Your task to perform on an android device: stop showing notifications on the lock screen Image 0: 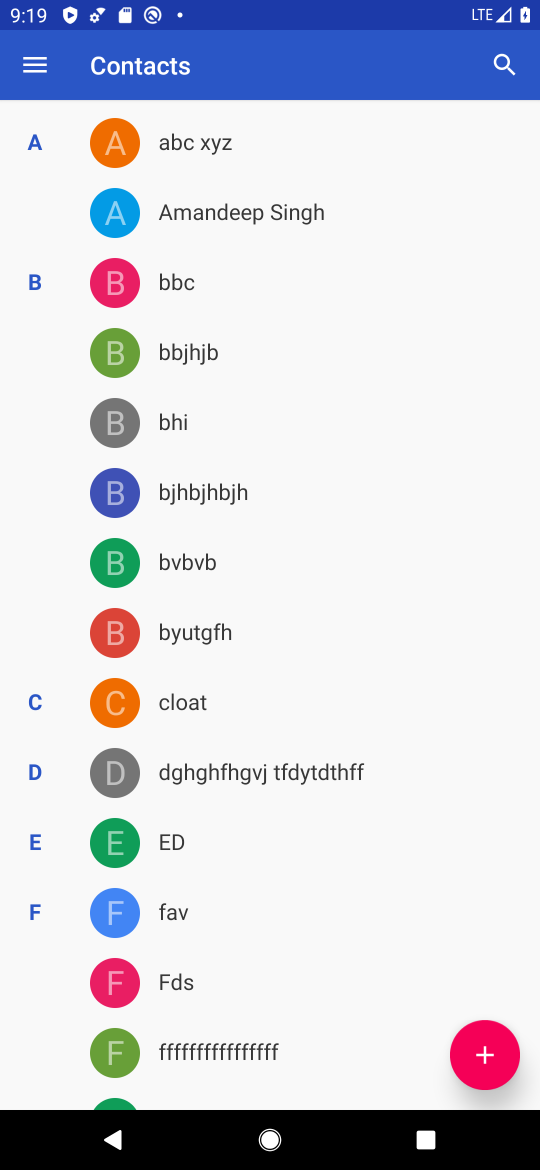
Step 0: press home button
Your task to perform on an android device: stop showing notifications on the lock screen Image 1: 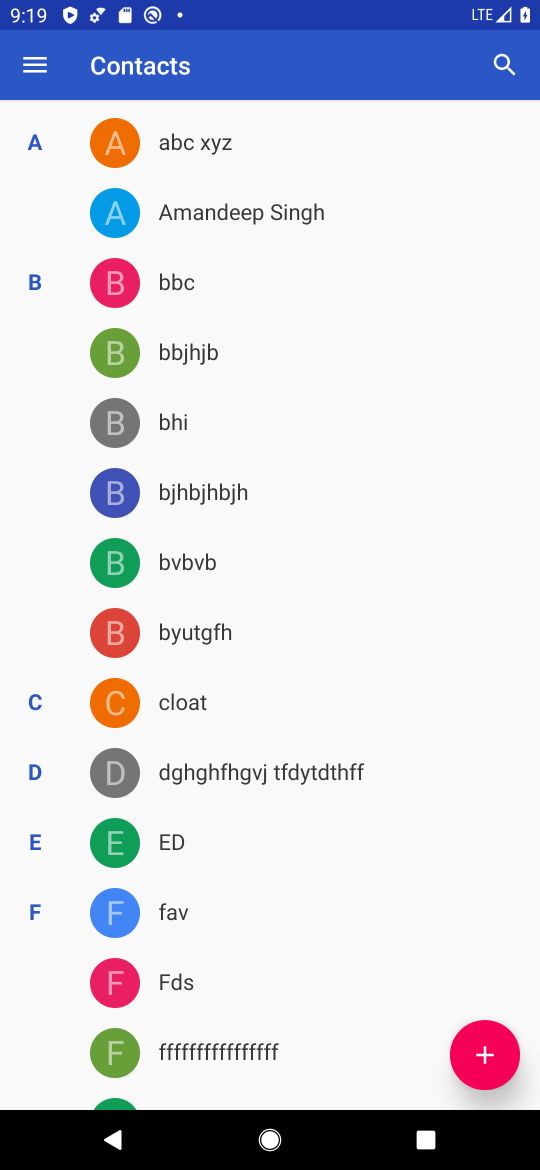
Step 1: press home button
Your task to perform on an android device: stop showing notifications on the lock screen Image 2: 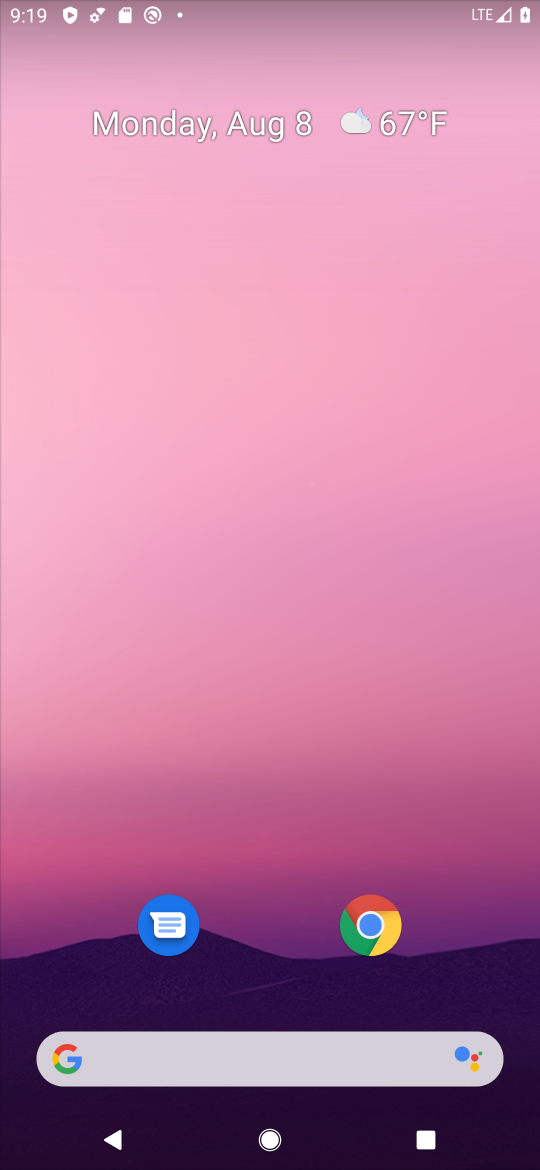
Step 2: drag from (265, 955) to (270, 21)
Your task to perform on an android device: stop showing notifications on the lock screen Image 3: 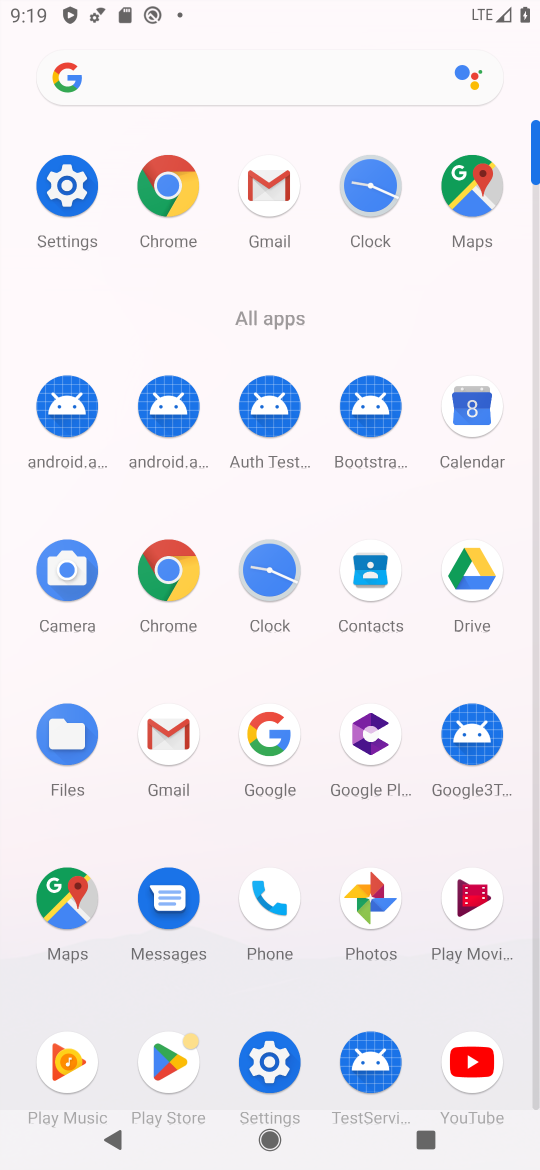
Step 3: click (283, 1049)
Your task to perform on an android device: stop showing notifications on the lock screen Image 4: 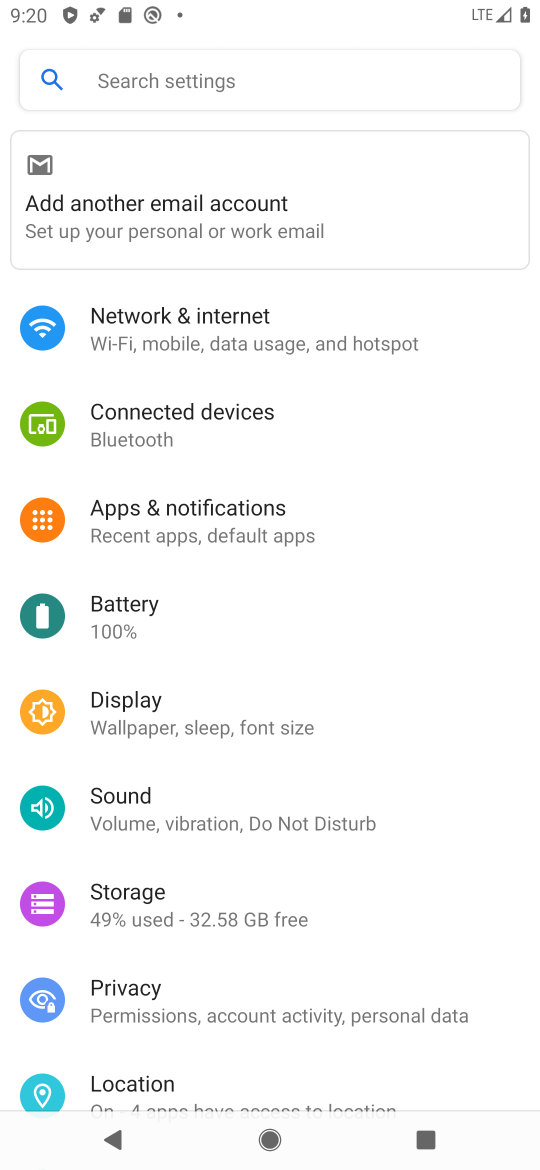
Step 4: click (149, 511)
Your task to perform on an android device: stop showing notifications on the lock screen Image 5: 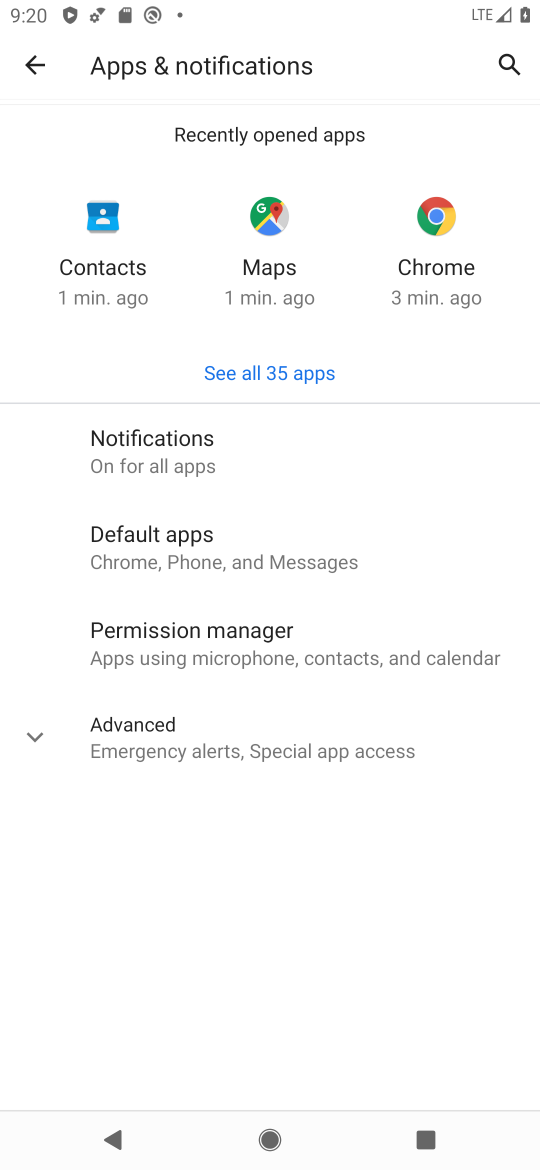
Step 5: click (172, 459)
Your task to perform on an android device: stop showing notifications on the lock screen Image 6: 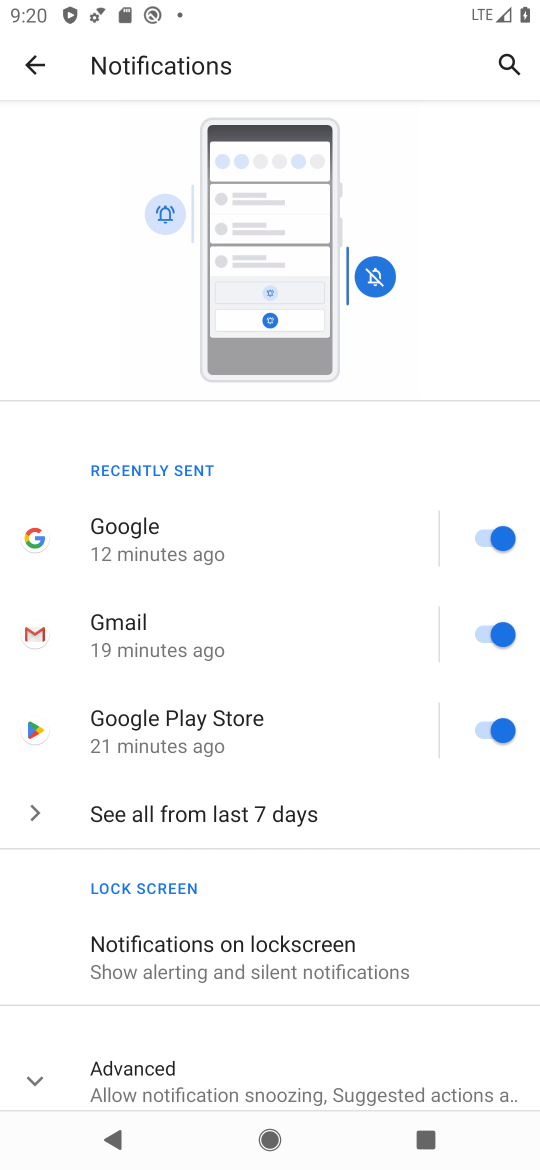
Step 6: click (270, 963)
Your task to perform on an android device: stop showing notifications on the lock screen Image 7: 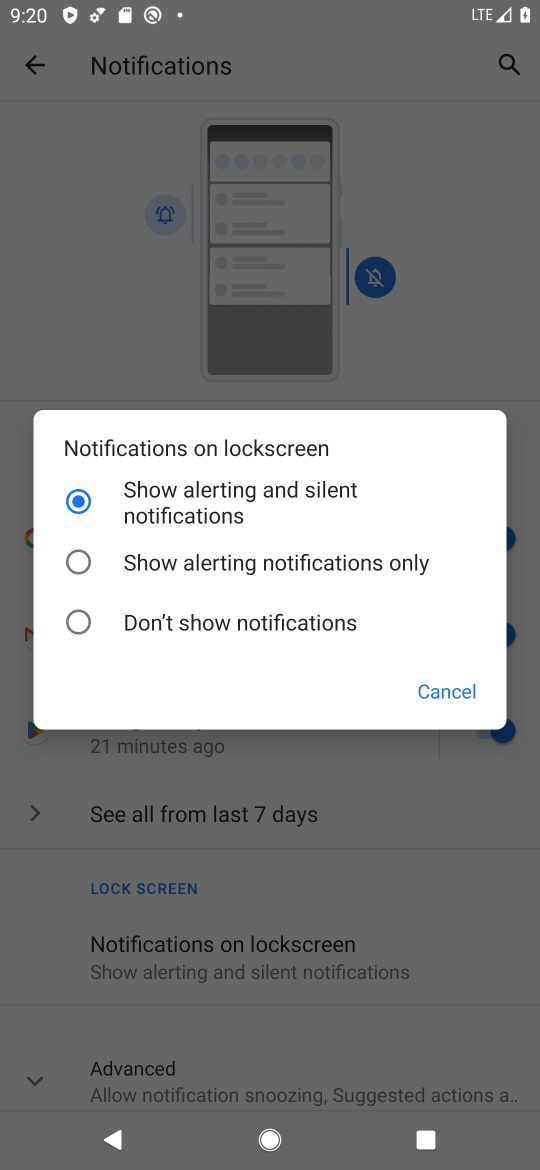
Step 7: click (245, 574)
Your task to perform on an android device: stop showing notifications on the lock screen Image 8: 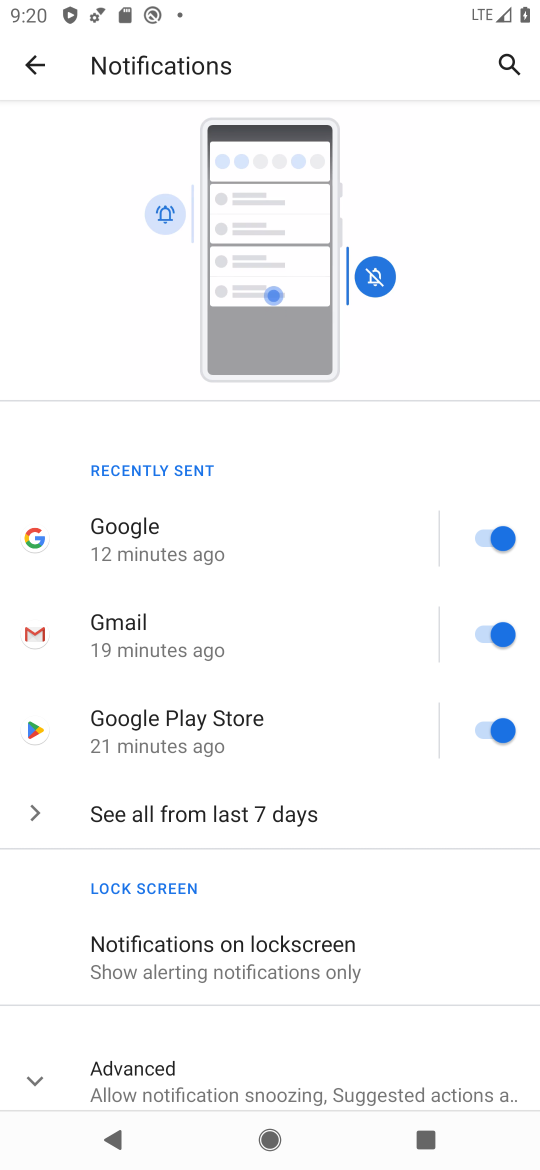
Step 8: click (257, 946)
Your task to perform on an android device: stop showing notifications on the lock screen Image 9: 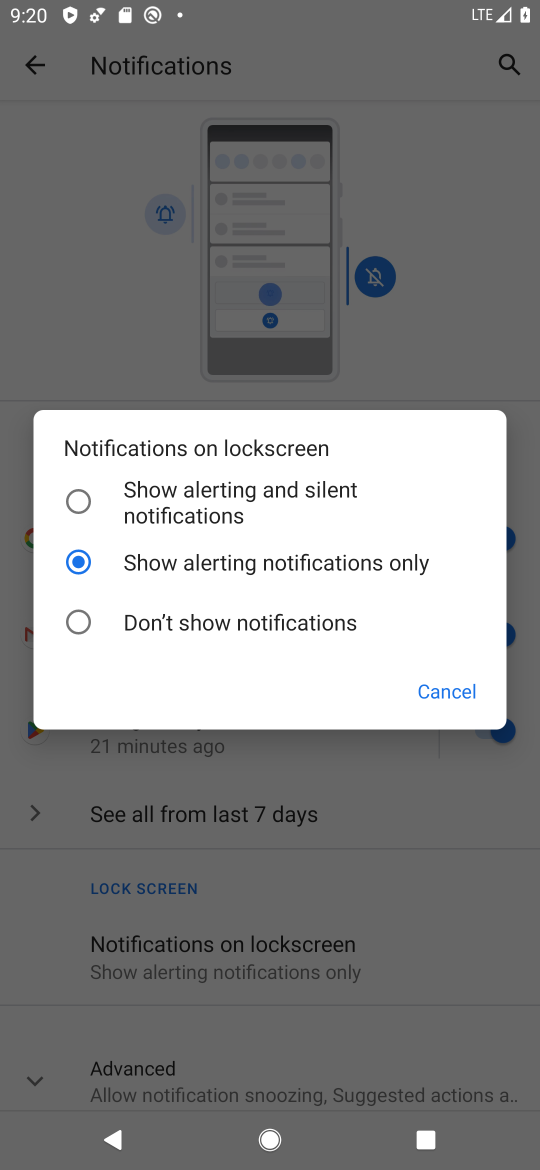
Step 9: click (167, 628)
Your task to perform on an android device: stop showing notifications on the lock screen Image 10: 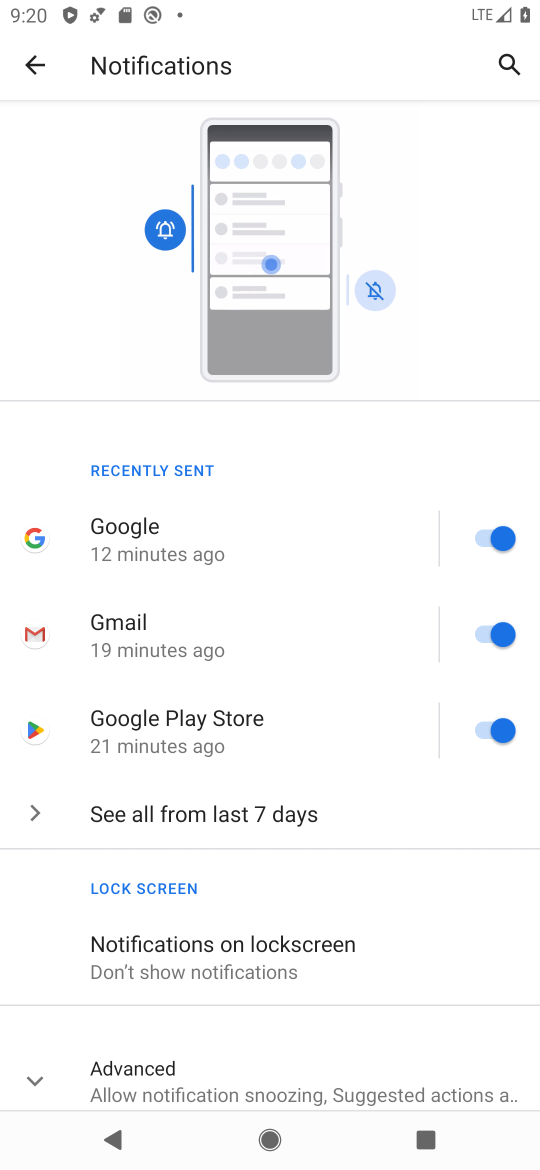
Step 10: task complete